Your task to perform on an android device: change your default location settings in chrome Image 0: 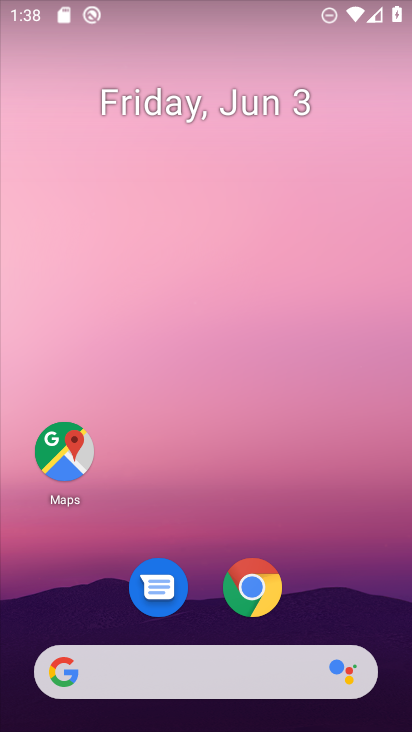
Step 0: click (254, 590)
Your task to perform on an android device: change your default location settings in chrome Image 1: 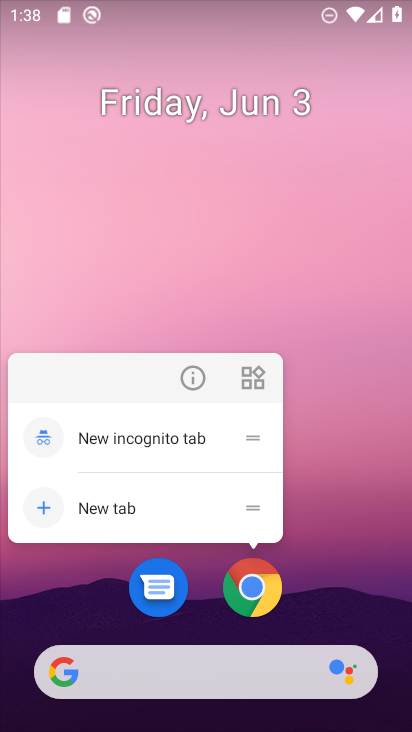
Step 1: click (248, 597)
Your task to perform on an android device: change your default location settings in chrome Image 2: 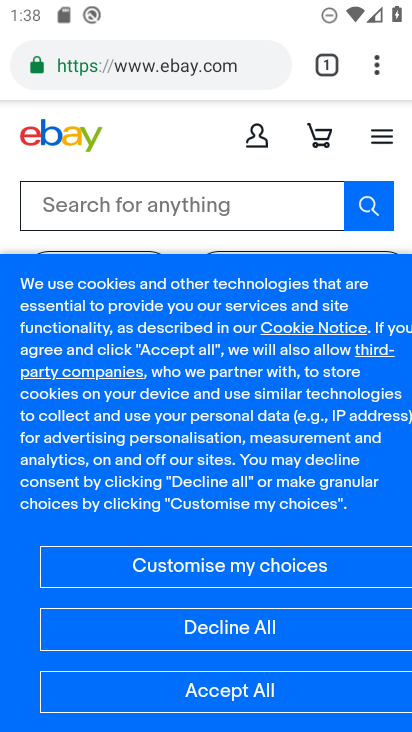
Step 2: click (383, 78)
Your task to perform on an android device: change your default location settings in chrome Image 3: 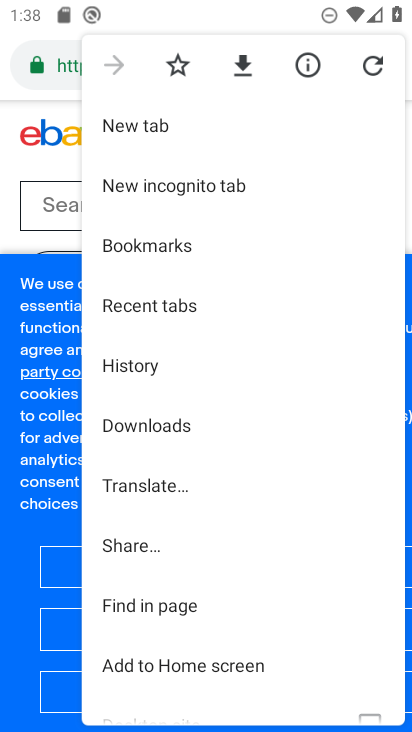
Step 3: drag from (218, 648) to (209, 193)
Your task to perform on an android device: change your default location settings in chrome Image 4: 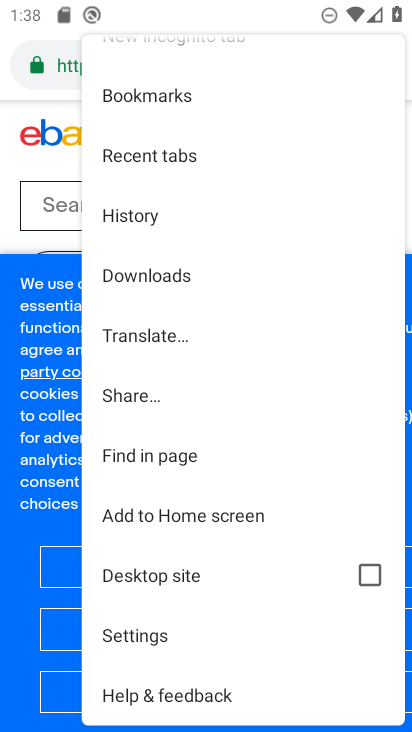
Step 4: click (217, 638)
Your task to perform on an android device: change your default location settings in chrome Image 5: 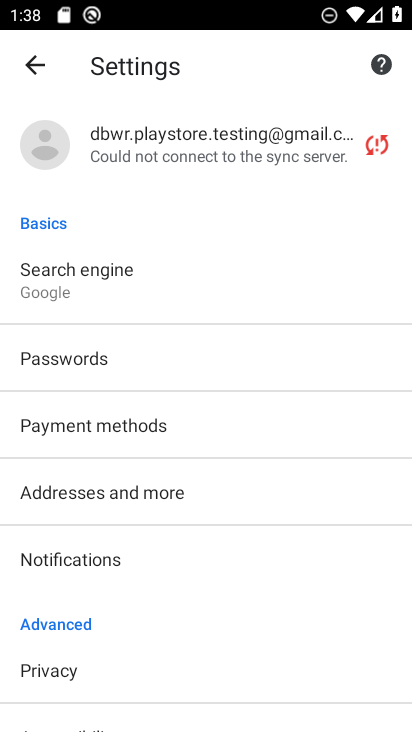
Step 5: drag from (189, 695) to (172, 269)
Your task to perform on an android device: change your default location settings in chrome Image 6: 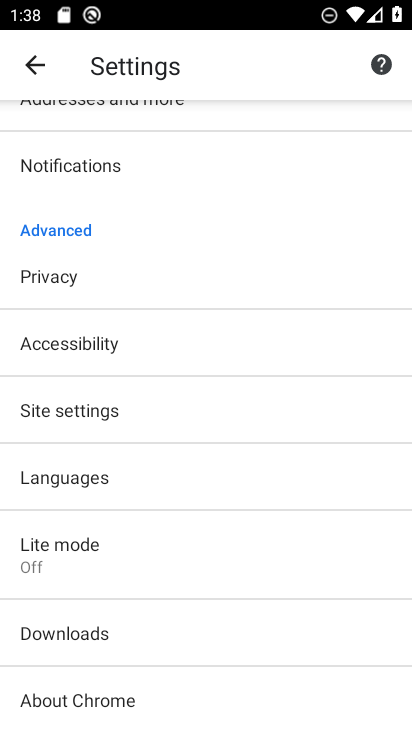
Step 6: click (115, 399)
Your task to perform on an android device: change your default location settings in chrome Image 7: 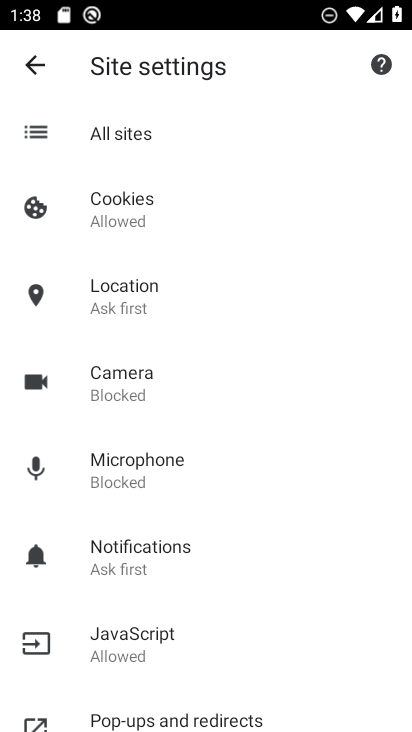
Step 7: click (137, 320)
Your task to perform on an android device: change your default location settings in chrome Image 8: 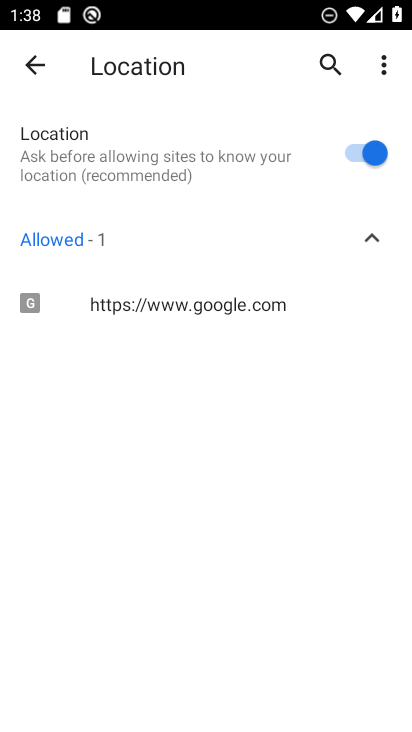
Step 8: click (362, 158)
Your task to perform on an android device: change your default location settings in chrome Image 9: 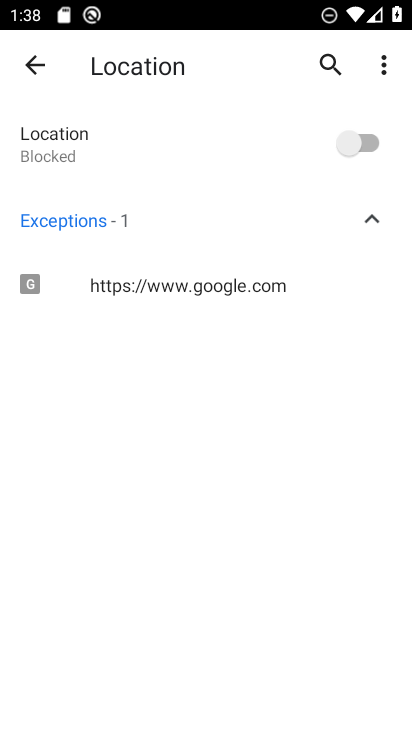
Step 9: task complete